Your task to perform on an android device: toggle translation in the chrome app Image 0: 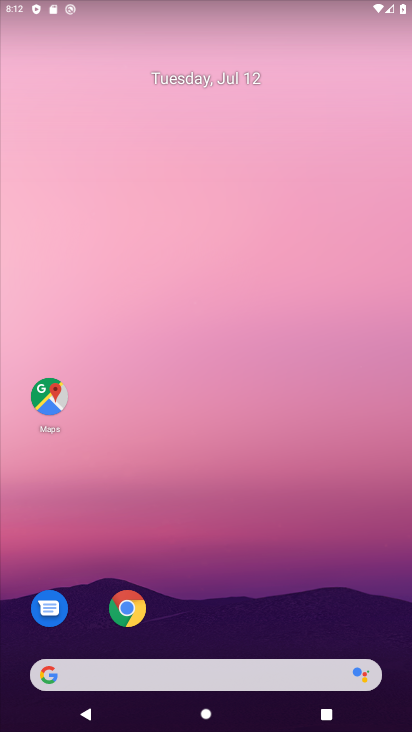
Step 0: click (125, 604)
Your task to perform on an android device: toggle translation in the chrome app Image 1: 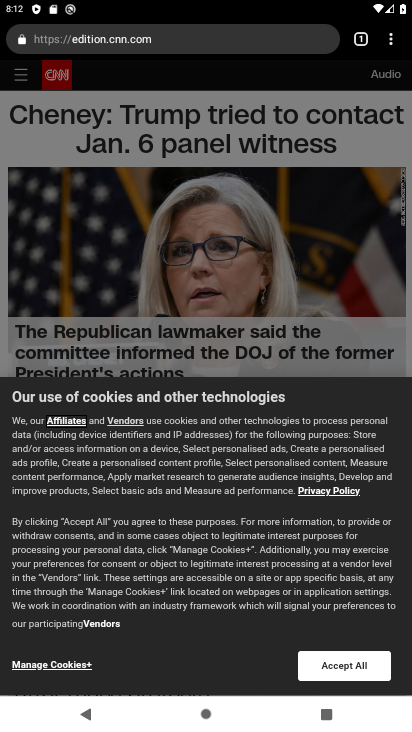
Step 1: click (393, 30)
Your task to perform on an android device: toggle translation in the chrome app Image 2: 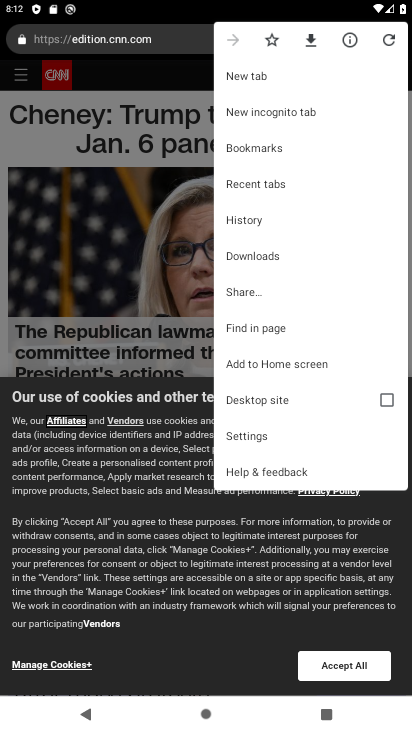
Step 2: click (250, 439)
Your task to perform on an android device: toggle translation in the chrome app Image 3: 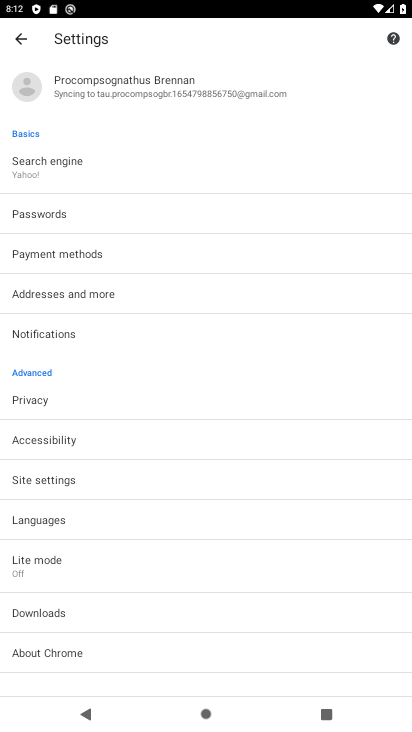
Step 3: click (42, 531)
Your task to perform on an android device: toggle translation in the chrome app Image 4: 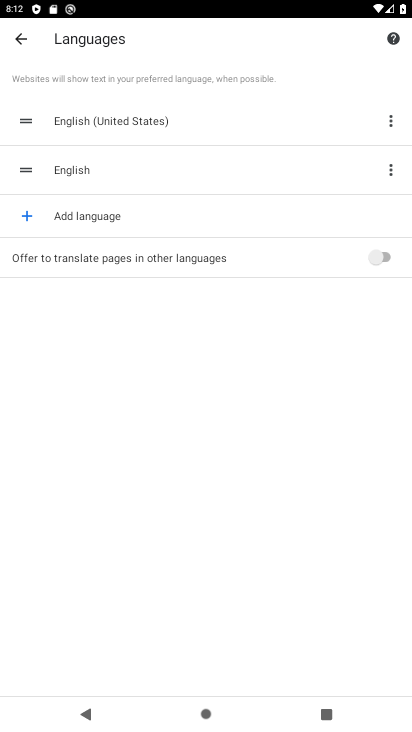
Step 4: click (378, 244)
Your task to perform on an android device: toggle translation in the chrome app Image 5: 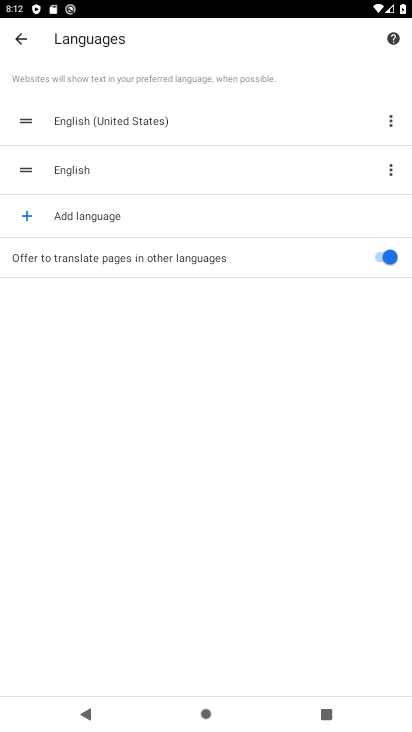
Step 5: task complete